Your task to perform on an android device: Open notification settings Image 0: 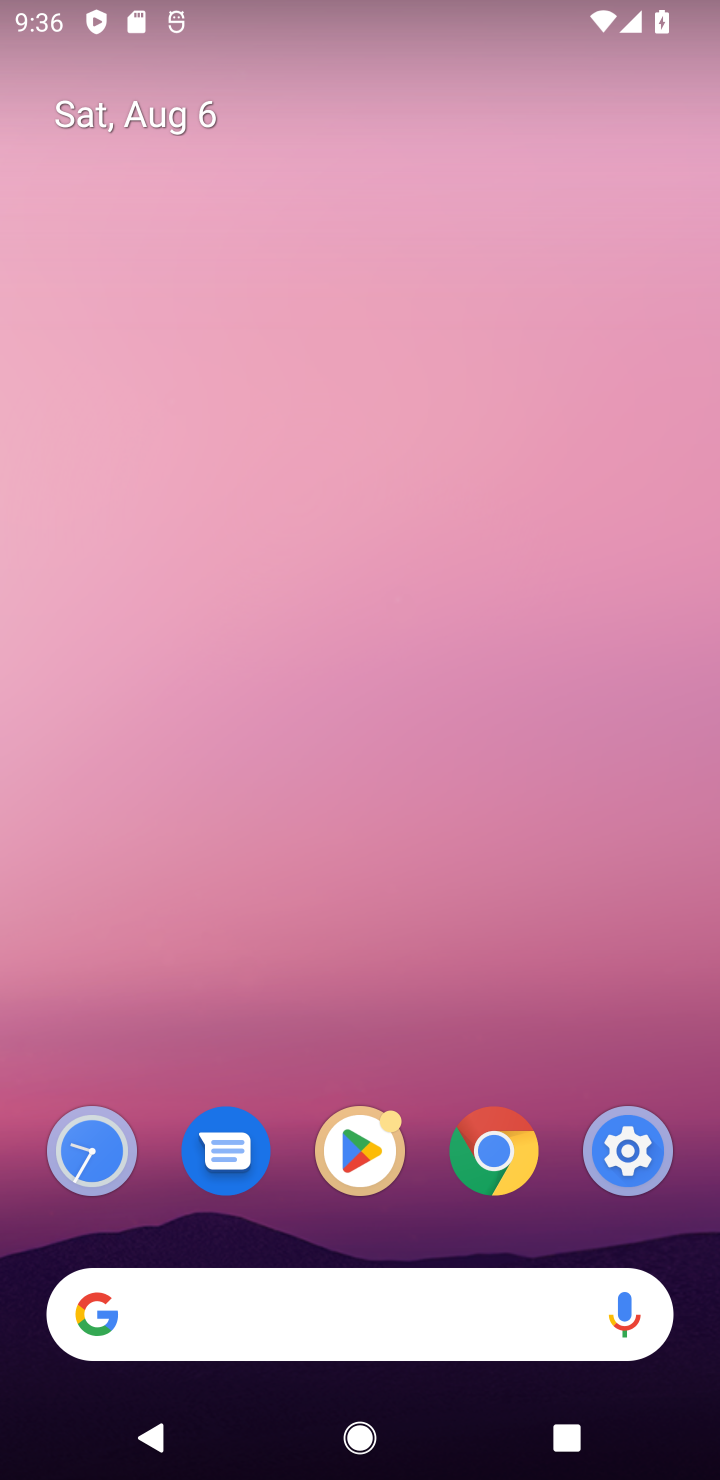
Step 0: drag from (418, 545) to (171, 0)
Your task to perform on an android device: Open notification settings Image 1: 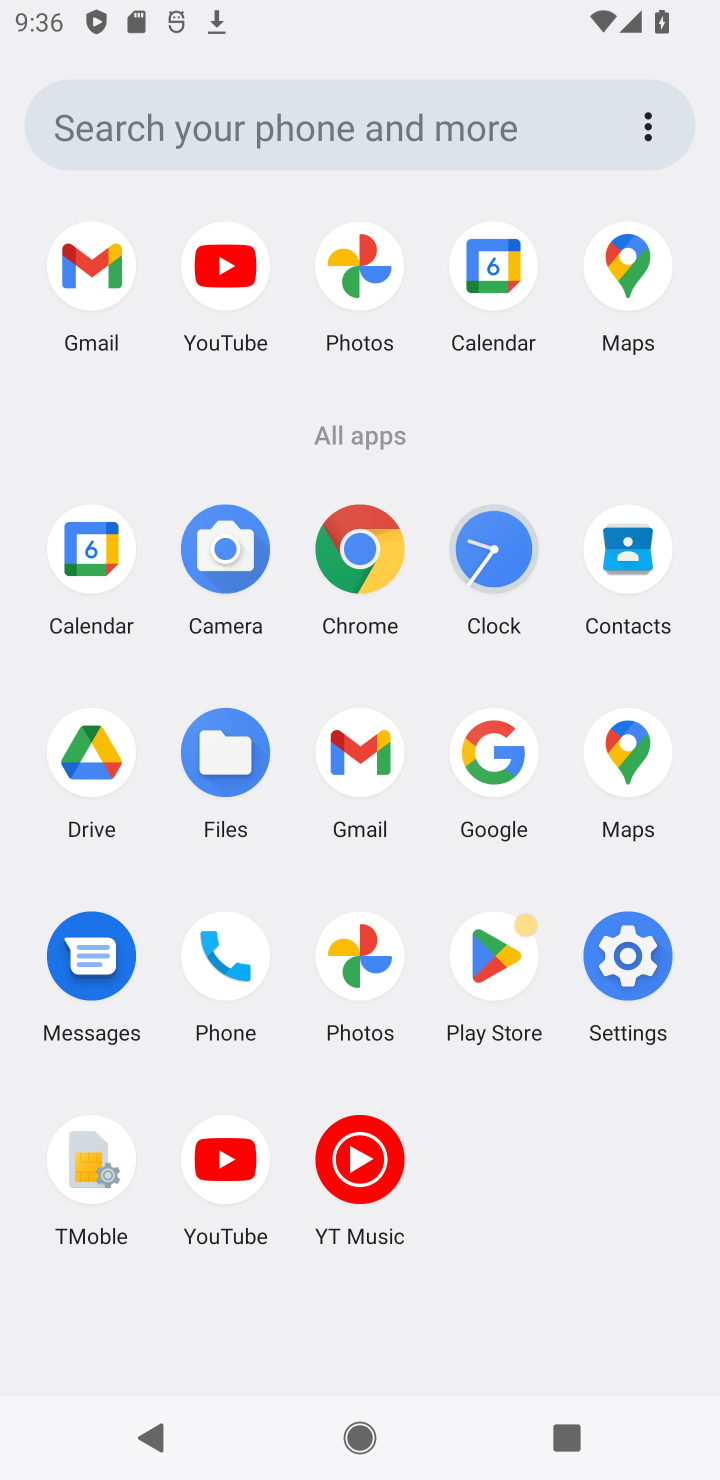
Step 1: click (645, 979)
Your task to perform on an android device: Open notification settings Image 2: 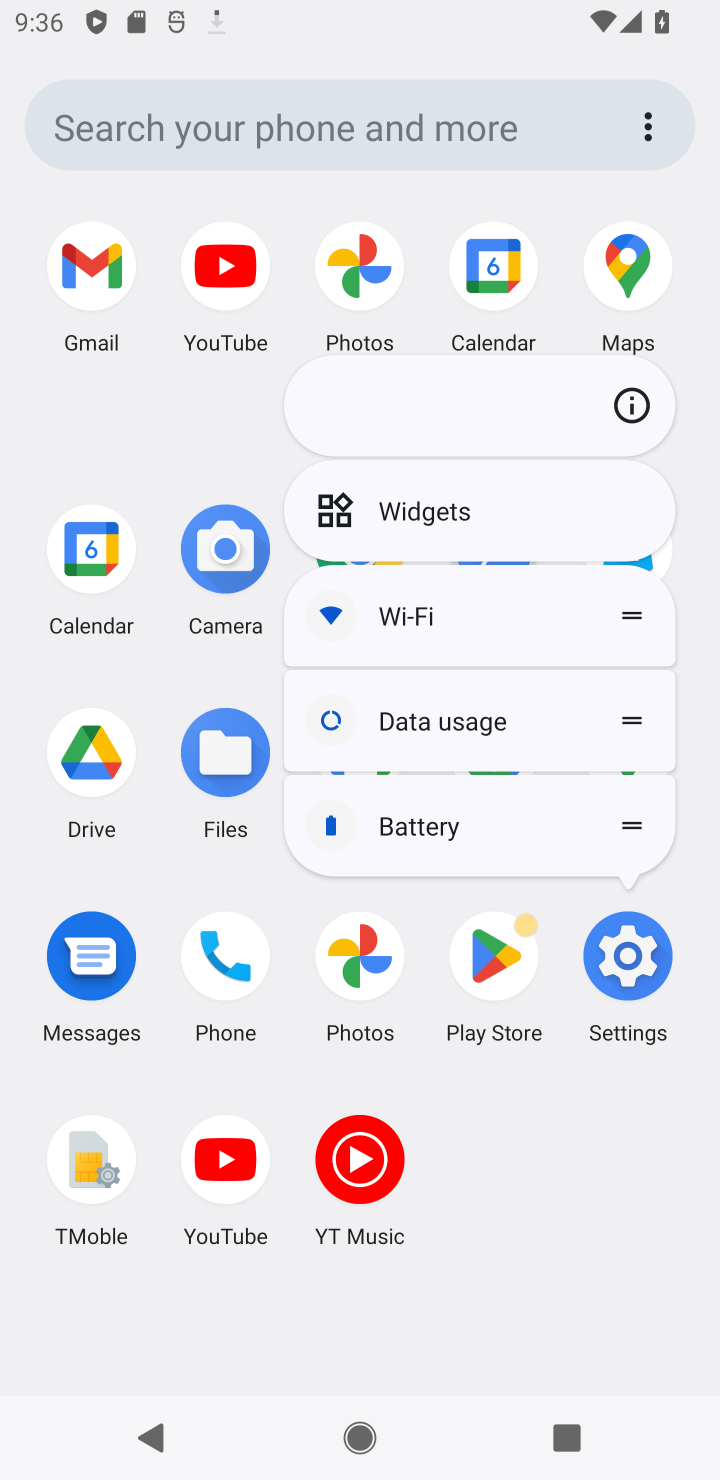
Step 2: click (645, 979)
Your task to perform on an android device: Open notification settings Image 3: 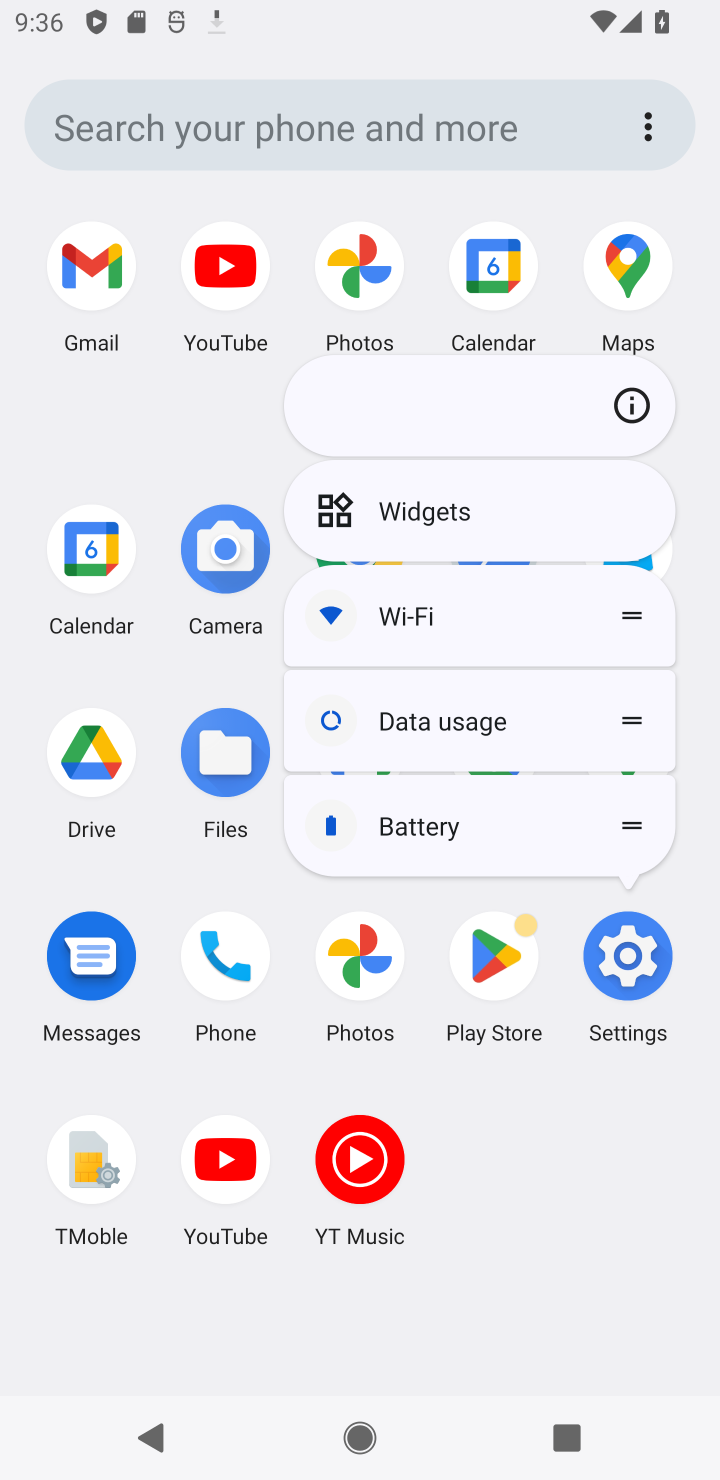
Step 3: click (632, 938)
Your task to perform on an android device: Open notification settings Image 4: 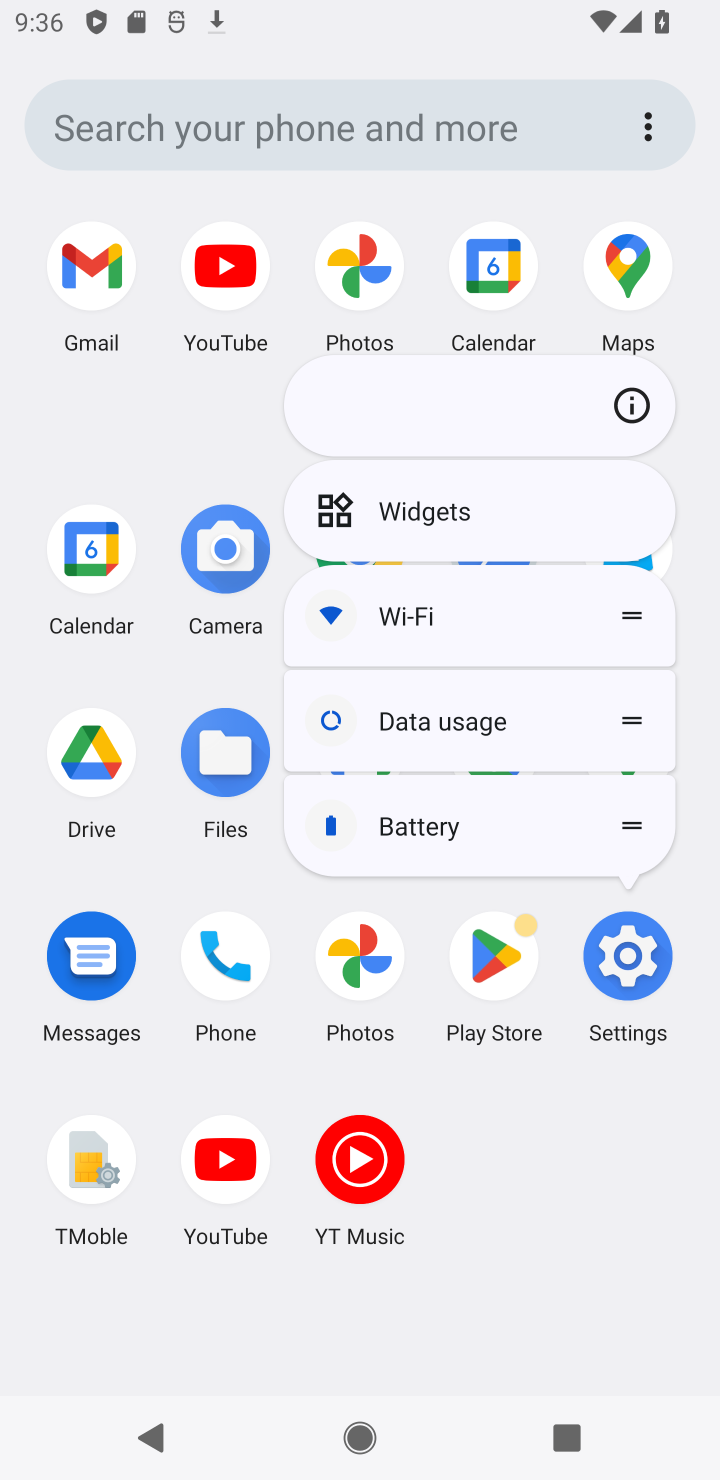
Step 4: click (543, 1187)
Your task to perform on an android device: Open notification settings Image 5: 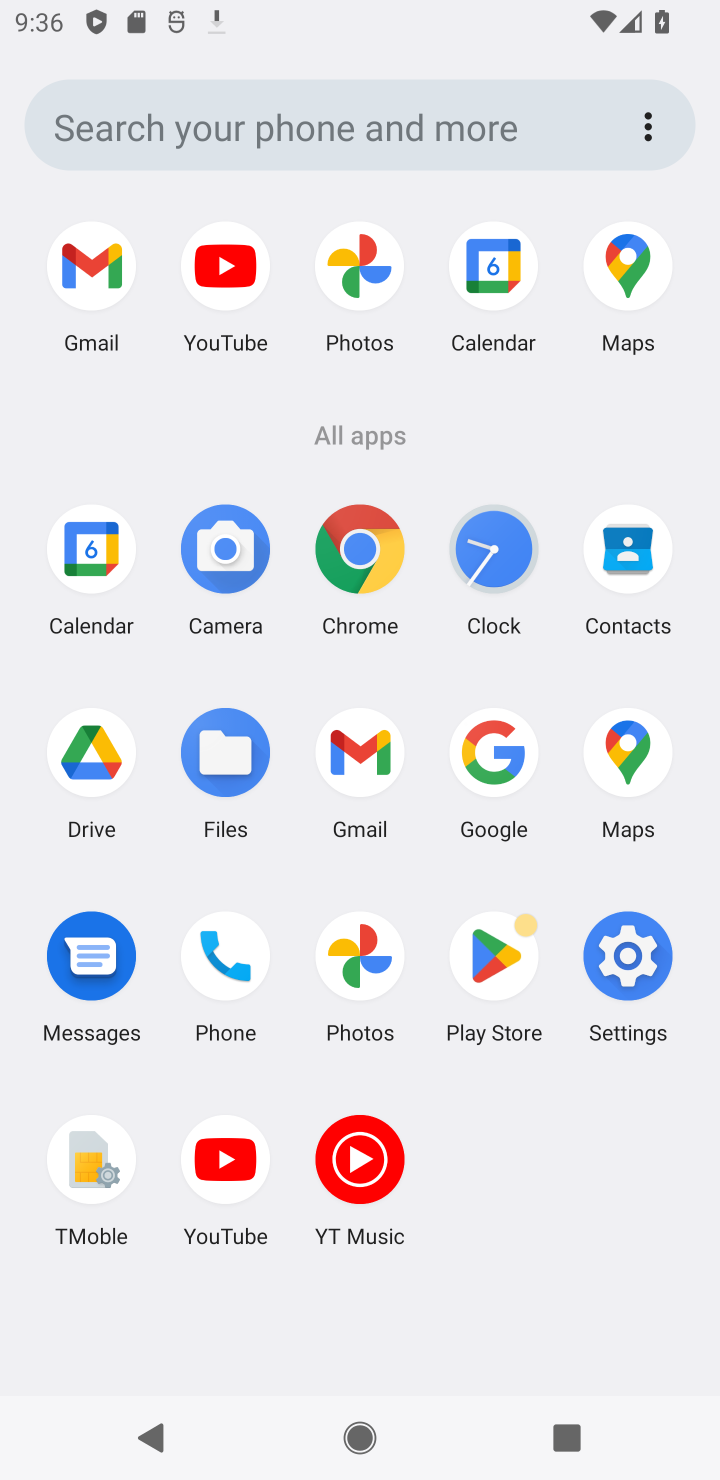
Step 5: click (621, 969)
Your task to perform on an android device: Open notification settings Image 6: 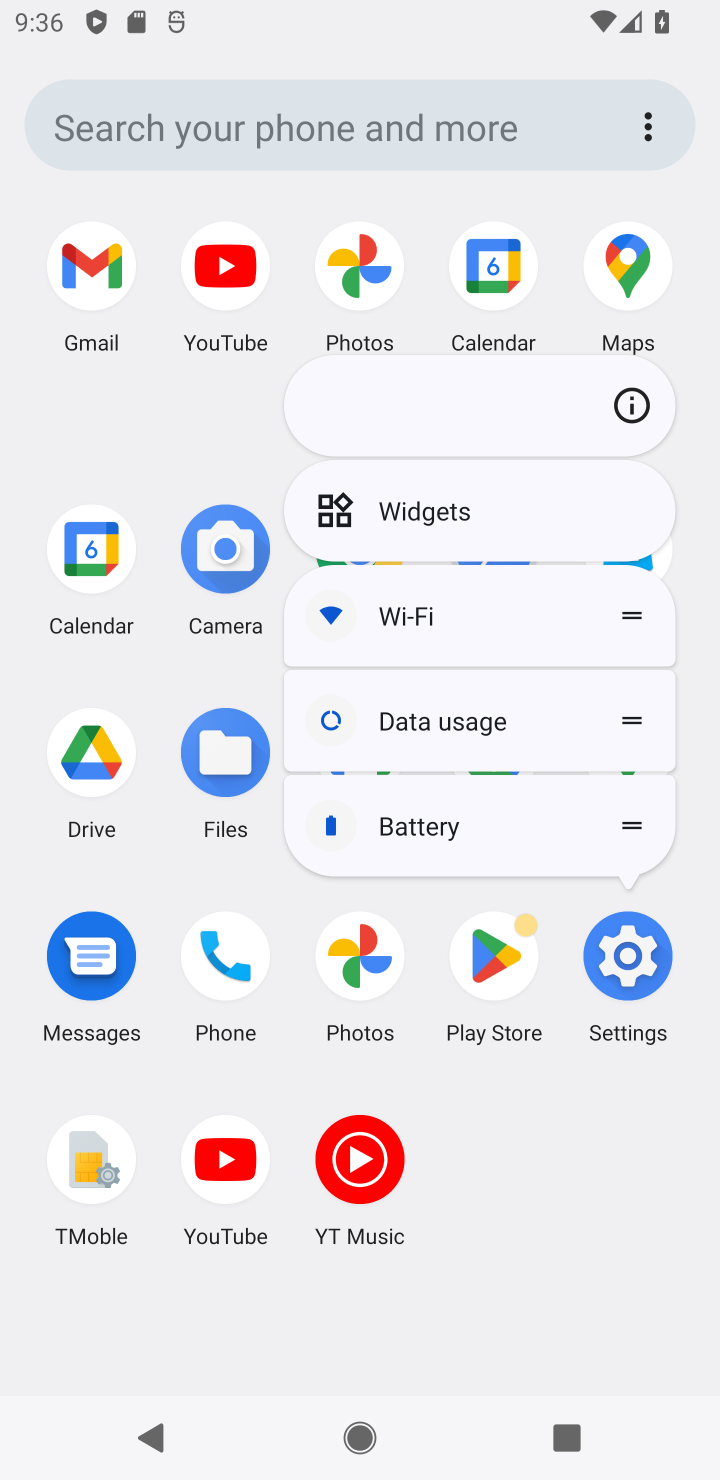
Step 6: task complete